Your task to perform on an android device: Is it going to rain this weekend? Image 0: 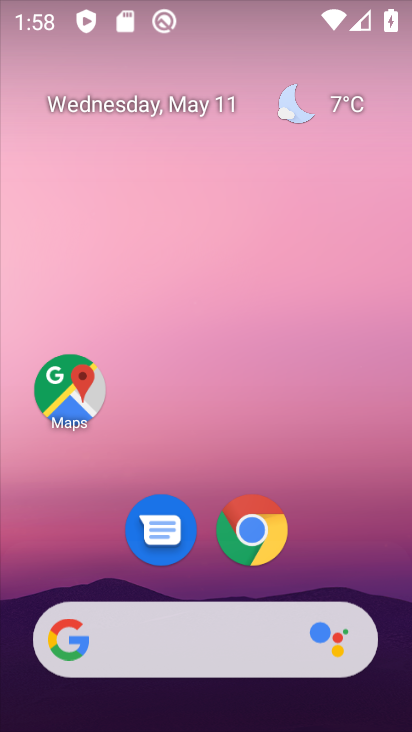
Step 0: drag from (365, 618) to (219, 196)
Your task to perform on an android device: Is it going to rain this weekend? Image 1: 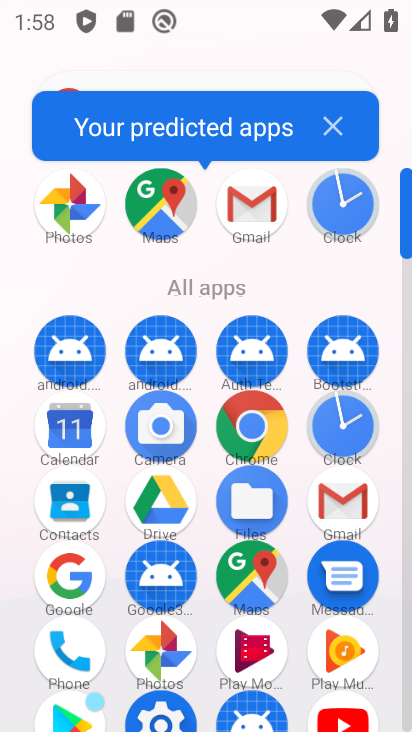
Step 1: press back button
Your task to perform on an android device: Is it going to rain this weekend? Image 2: 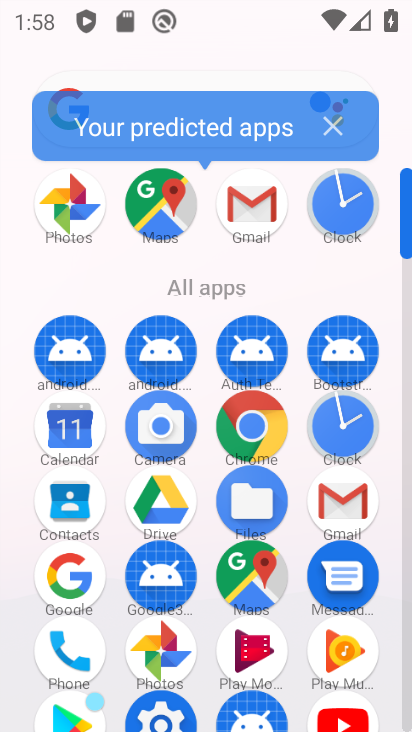
Step 2: press back button
Your task to perform on an android device: Is it going to rain this weekend? Image 3: 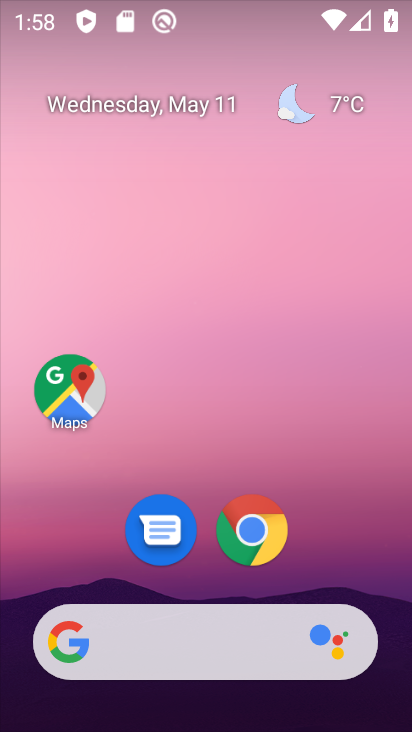
Step 3: click (289, 102)
Your task to perform on an android device: Is it going to rain this weekend? Image 4: 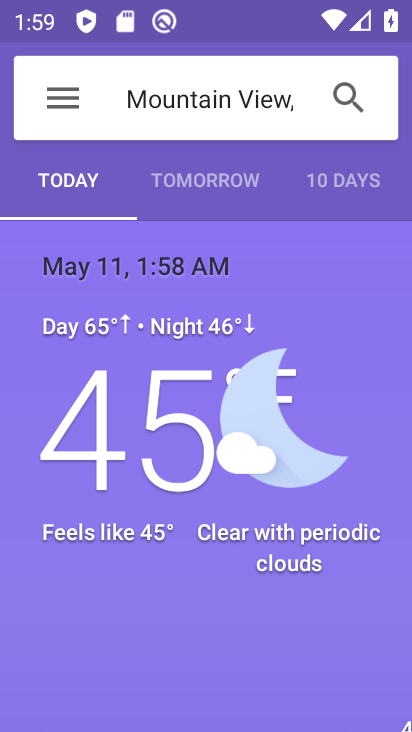
Step 4: drag from (249, 543) to (202, 187)
Your task to perform on an android device: Is it going to rain this weekend? Image 5: 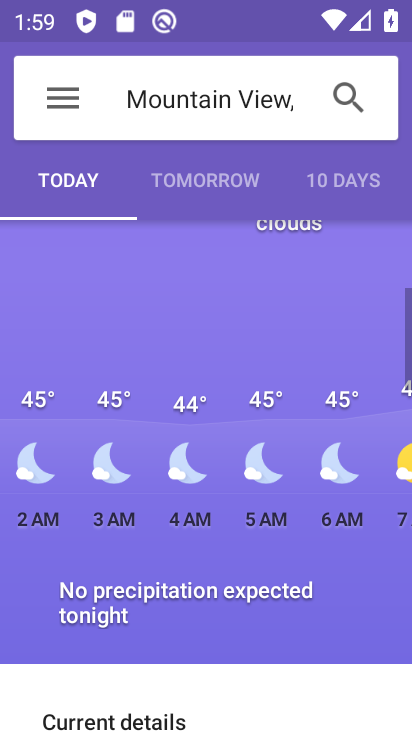
Step 5: drag from (248, 420) to (189, 158)
Your task to perform on an android device: Is it going to rain this weekend? Image 6: 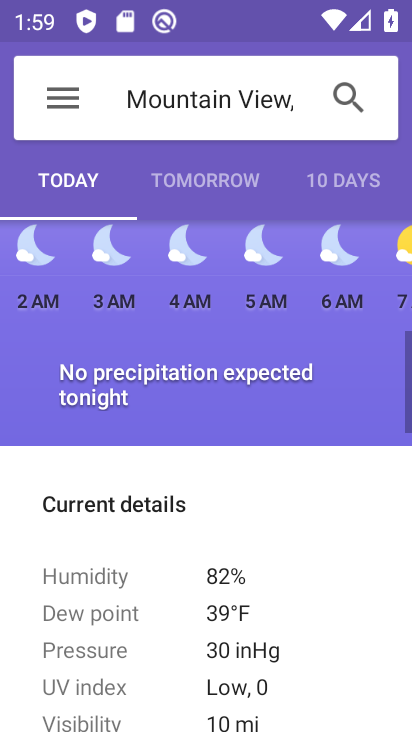
Step 6: drag from (208, 446) to (134, 164)
Your task to perform on an android device: Is it going to rain this weekend? Image 7: 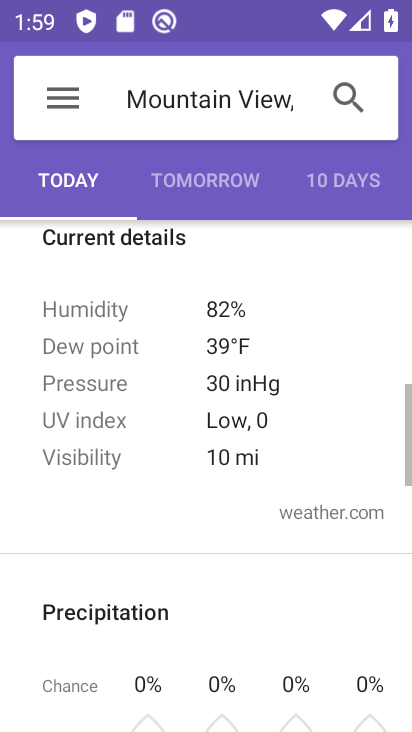
Step 7: drag from (197, 384) to (166, 165)
Your task to perform on an android device: Is it going to rain this weekend? Image 8: 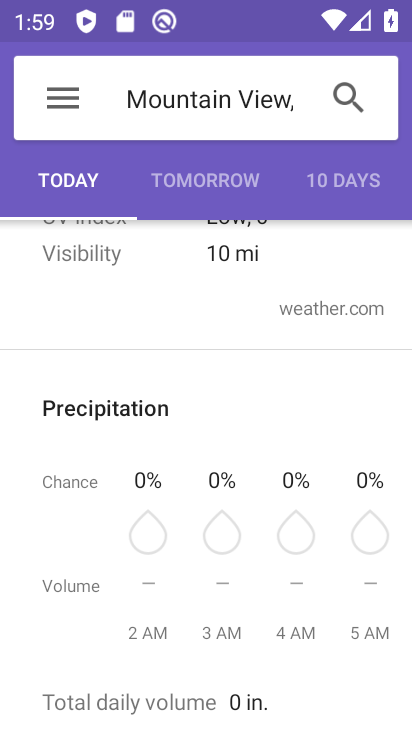
Step 8: press back button
Your task to perform on an android device: Is it going to rain this weekend? Image 9: 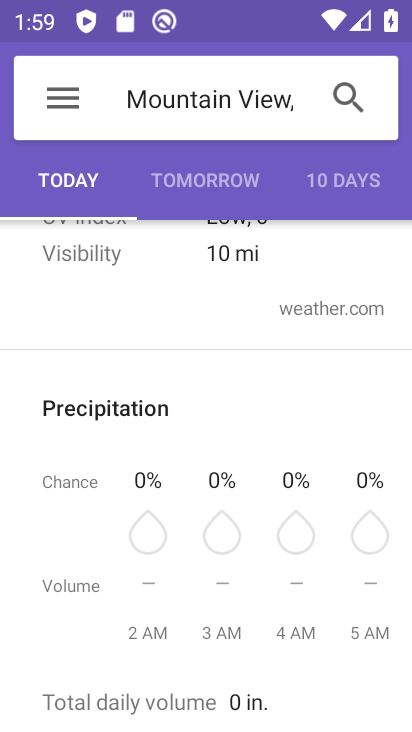
Step 9: press home button
Your task to perform on an android device: Is it going to rain this weekend? Image 10: 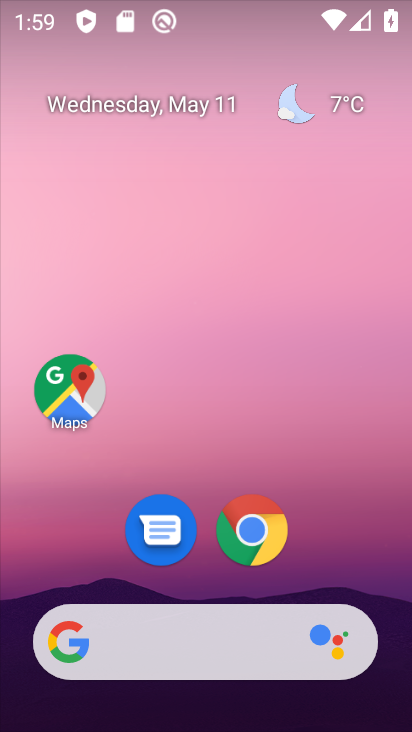
Step 10: drag from (348, 555) to (249, 140)
Your task to perform on an android device: Is it going to rain this weekend? Image 11: 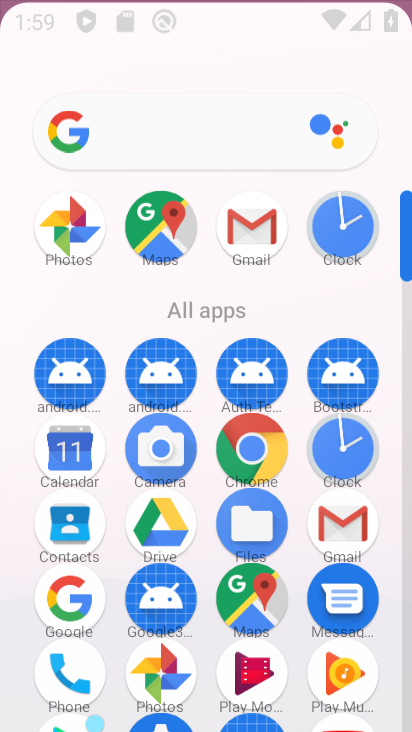
Step 11: click (288, 106)
Your task to perform on an android device: Is it going to rain this weekend? Image 12: 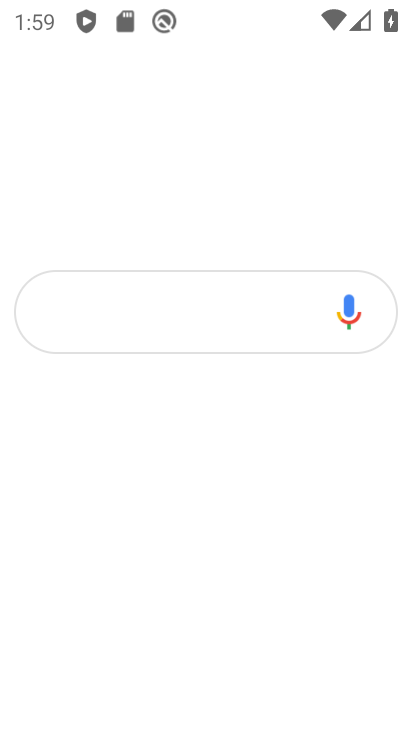
Step 12: press back button
Your task to perform on an android device: Is it going to rain this weekend? Image 13: 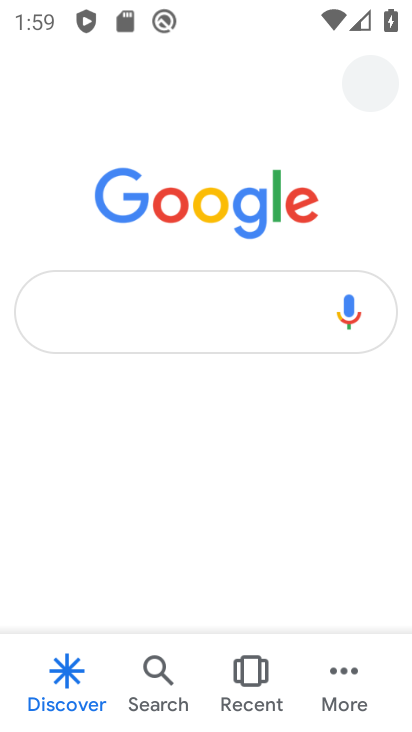
Step 13: press back button
Your task to perform on an android device: Is it going to rain this weekend? Image 14: 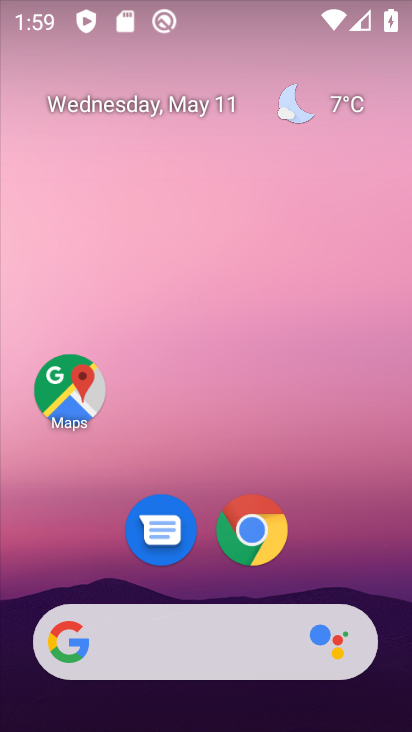
Step 14: click (294, 90)
Your task to perform on an android device: Is it going to rain this weekend? Image 15: 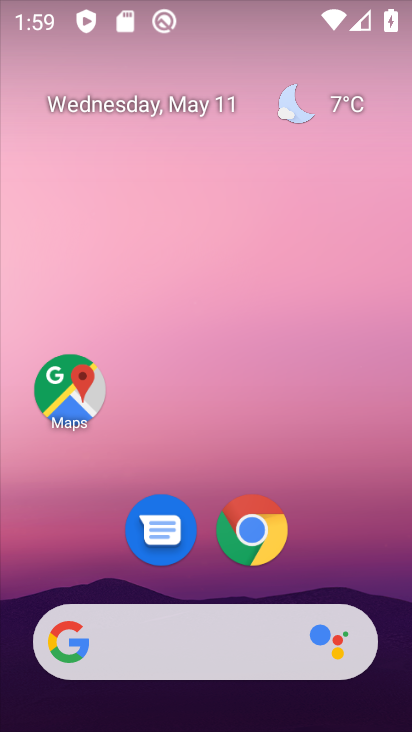
Step 15: task complete